Your task to perform on an android device: Open calendar and show me the second week of next month Image 0: 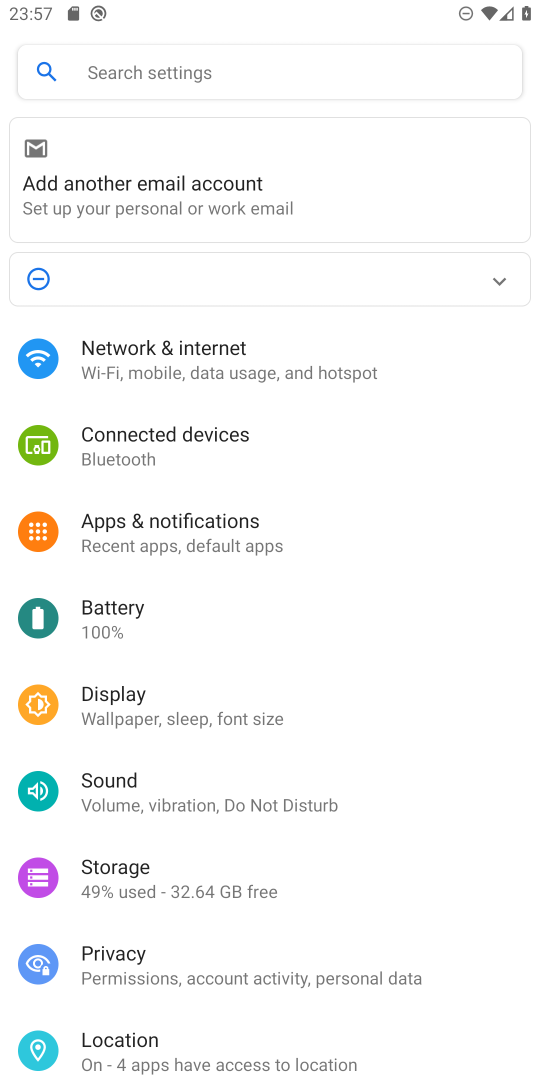
Step 0: press home button
Your task to perform on an android device: Open calendar and show me the second week of next month Image 1: 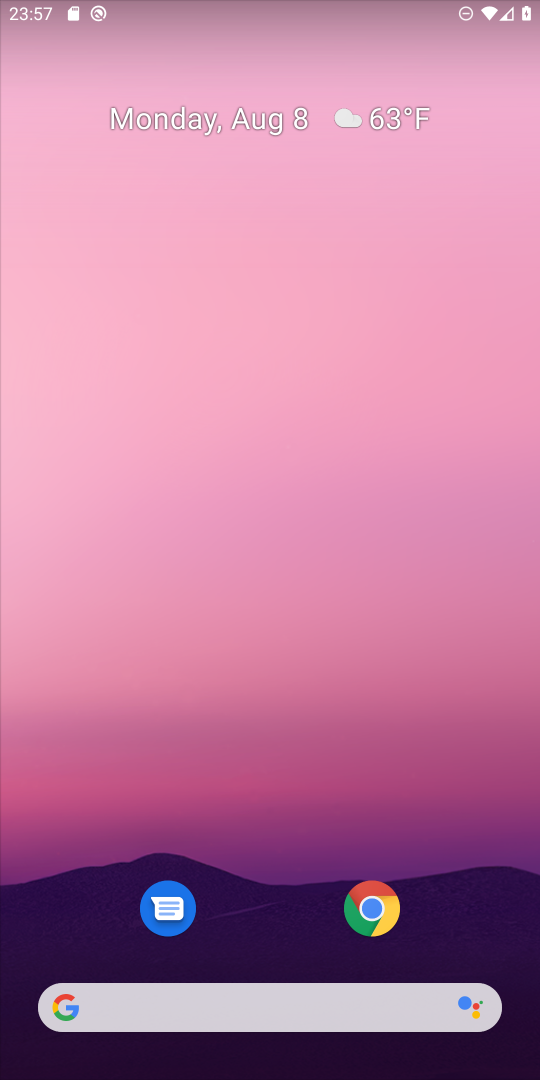
Step 1: drag from (282, 926) to (216, 28)
Your task to perform on an android device: Open calendar and show me the second week of next month Image 2: 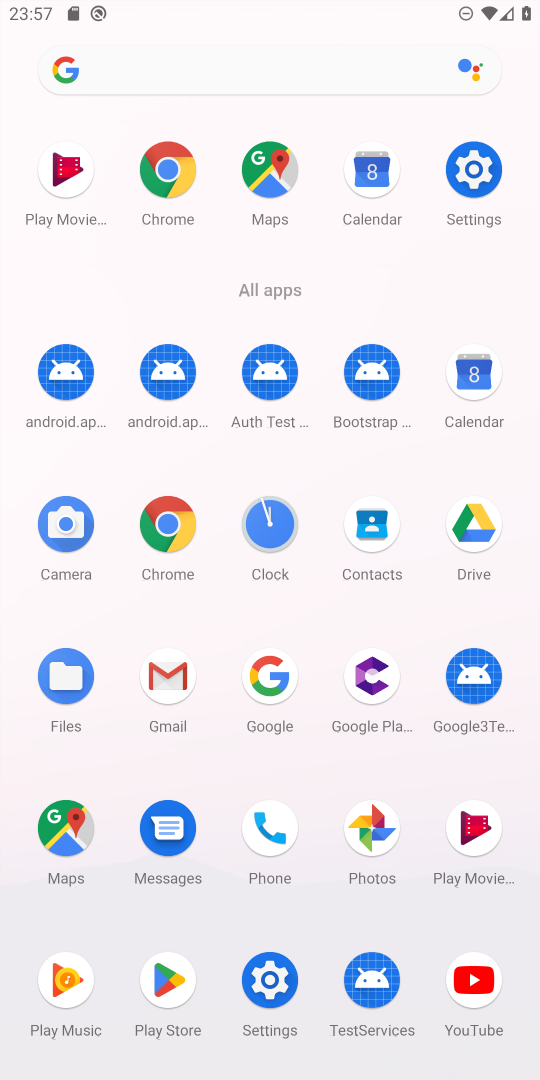
Step 2: click (370, 186)
Your task to perform on an android device: Open calendar and show me the second week of next month Image 3: 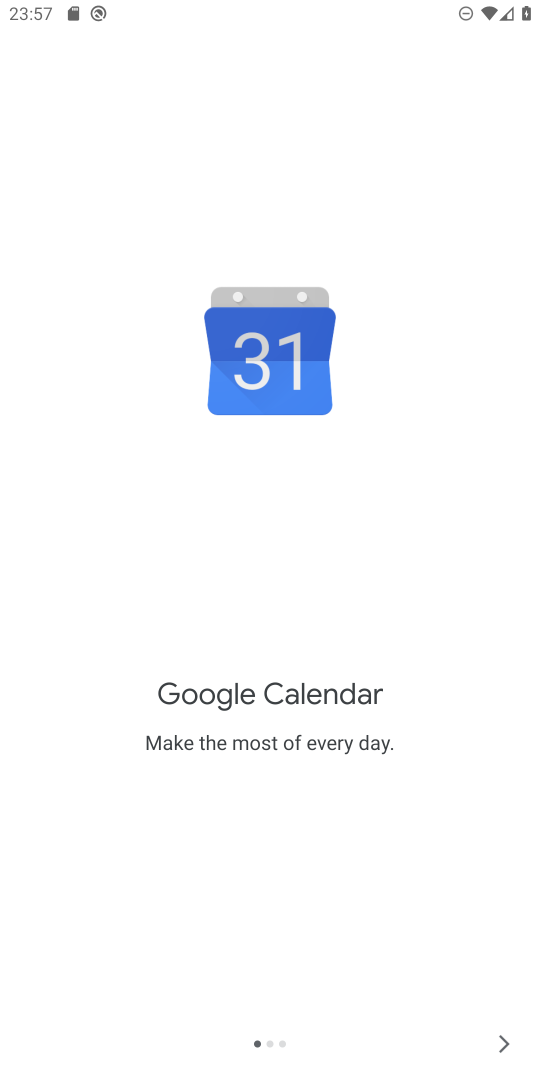
Step 3: click (108, 764)
Your task to perform on an android device: Open calendar and show me the second week of next month Image 4: 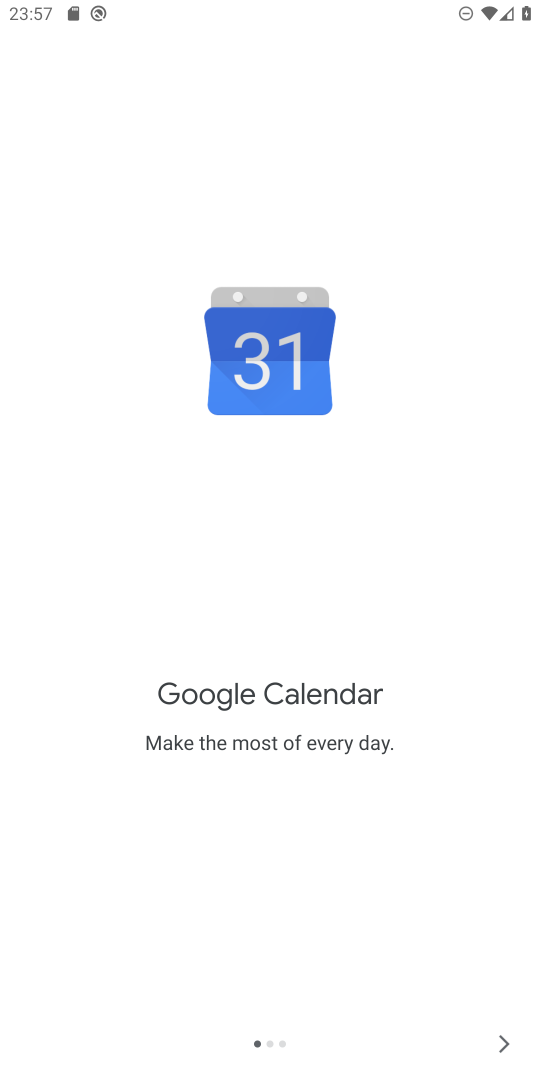
Step 4: click (499, 1038)
Your task to perform on an android device: Open calendar and show me the second week of next month Image 5: 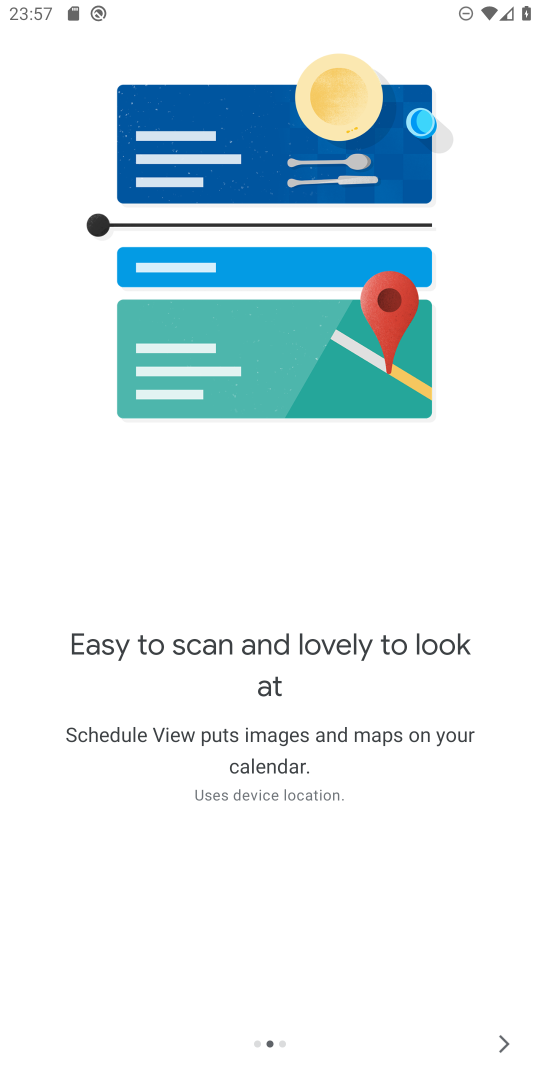
Step 5: click (502, 1048)
Your task to perform on an android device: Open calendar and show me the second week of next month Image 6: 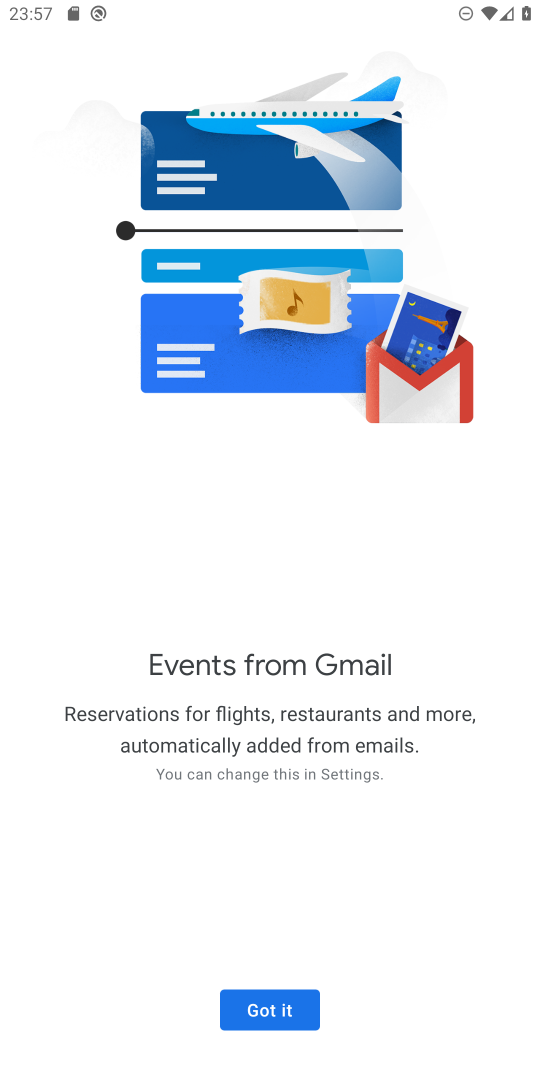
Step 6: click (302, 1009)
Your task to perform on an android device: Open calendar and show me the second week of next month Image 7: 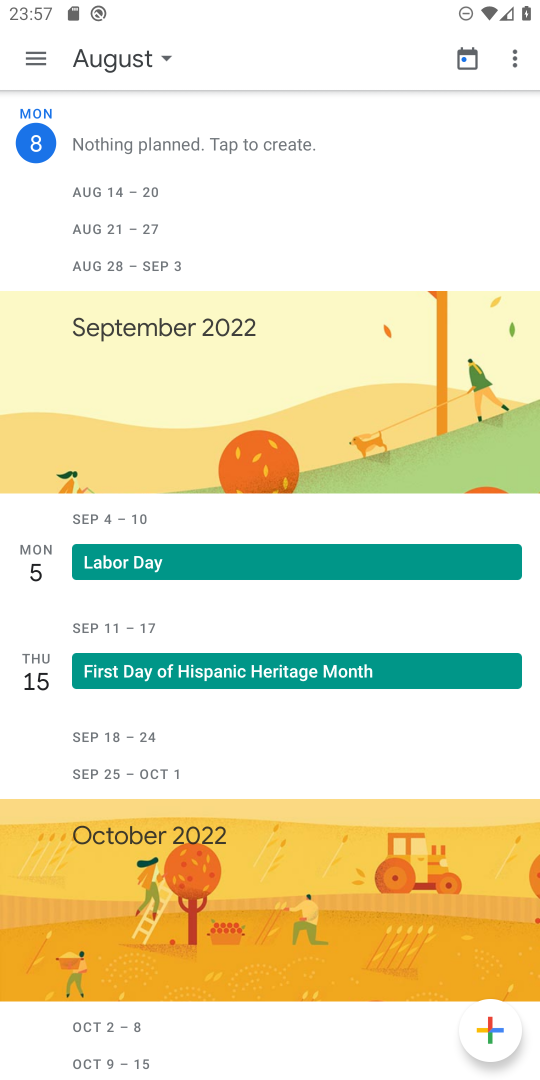
Step 7: click (30, 56)
Your task to perform on an android device: Open calendar and show me the second week of next month Image 8: 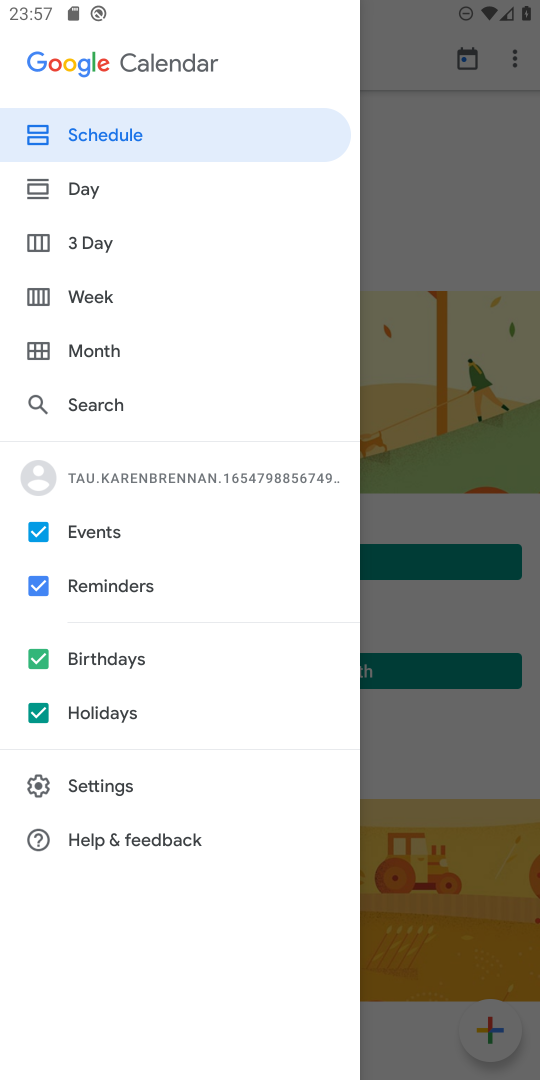
Step 8: click (66, 295)
Your task to perform on an android device: Open calendar and show me the second week of next month Image 9: 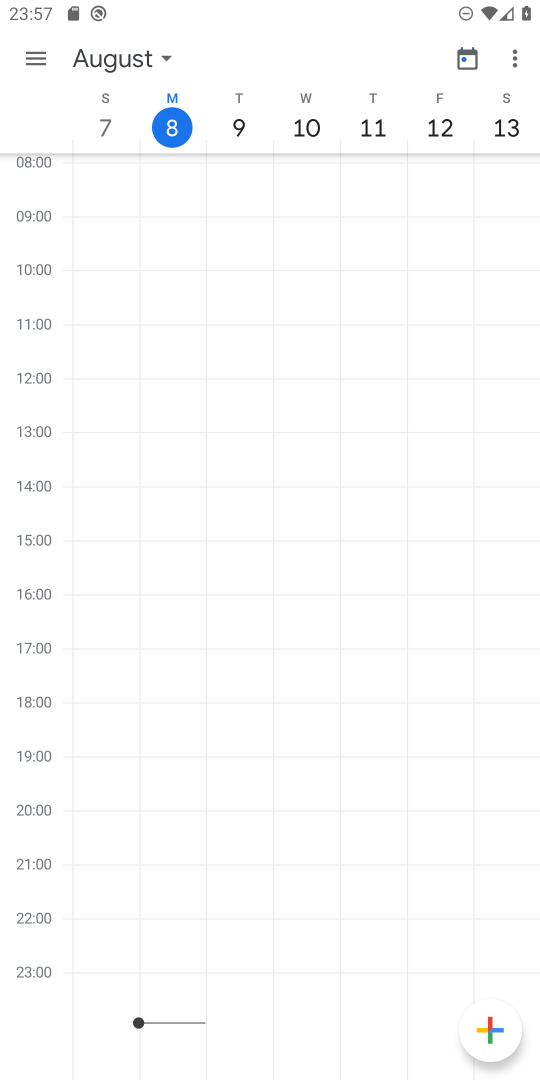
Step 9: click (144, 72)
Your task to perform on an android device: Open calendar and show me the second week of next month Image 10: 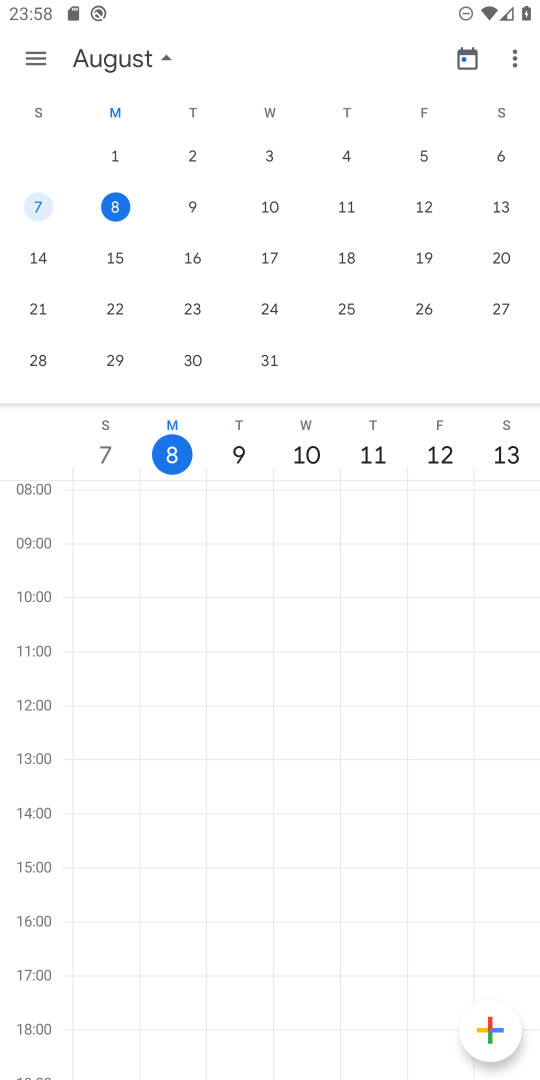
Step 10: drag from (476, 208) to (46, 260)
Your task to perform on an android device: Open calendar and show me the second week of next month Image 11: 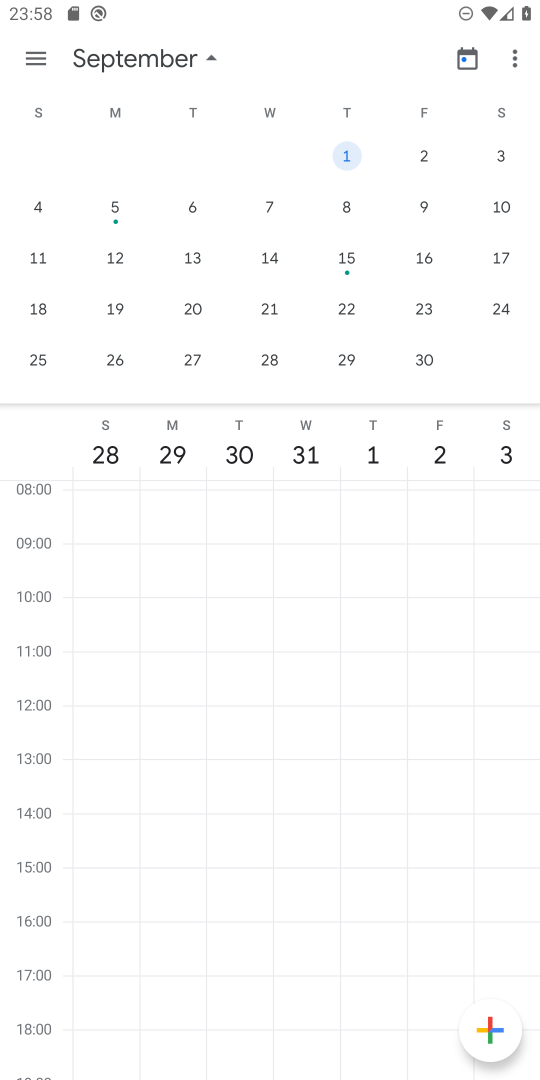
Step 11: click (268, 265)
Your task to perform on an android device: Open calendar and show me the second week of next month Image 12: 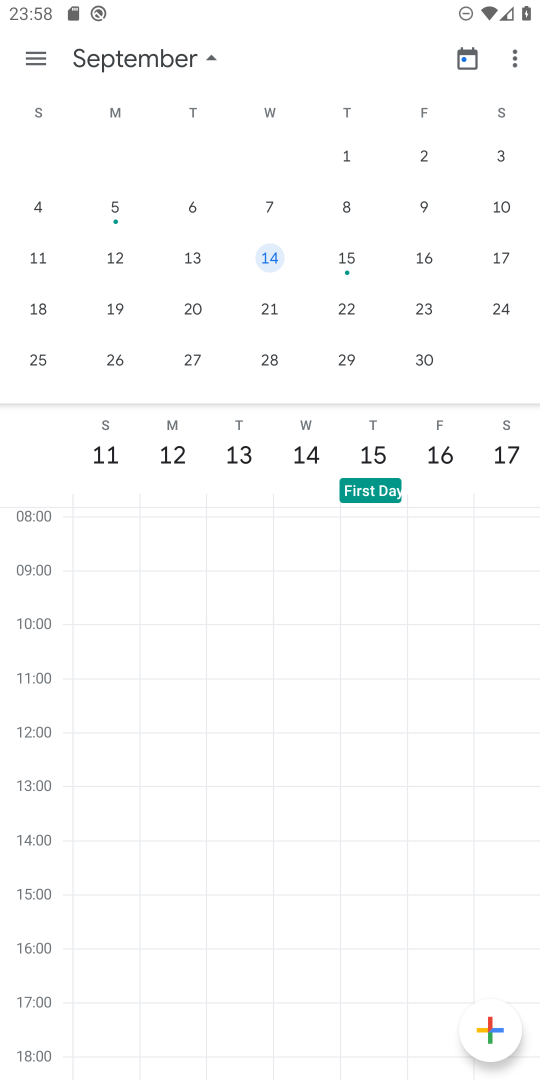
Step 12: task complete